Your task to perform on an android device: toggle improve location accuracy Image 0: 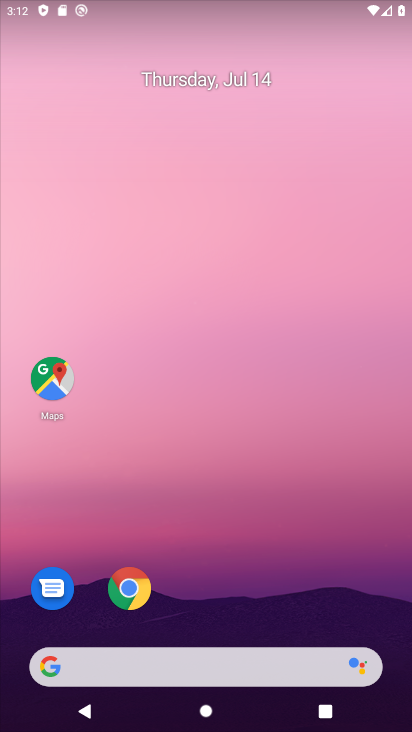
Step 0: click (266, 186)
Your task to perform on an android device: toggle improve location accuracy Image 1: 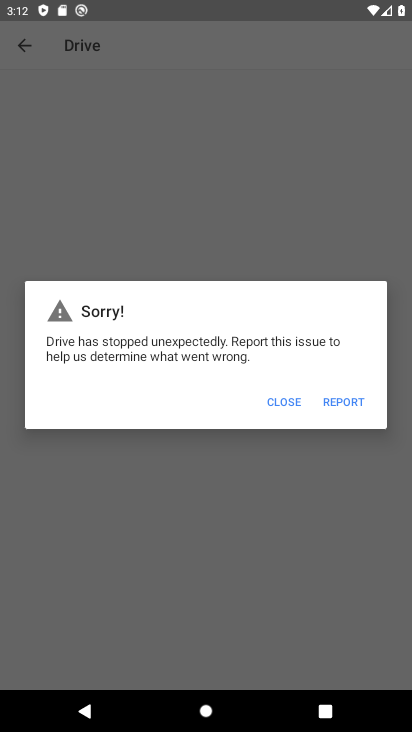
Step 1: press home button
Your task to perform on an android device: toggle improve location accuracy Image 2: 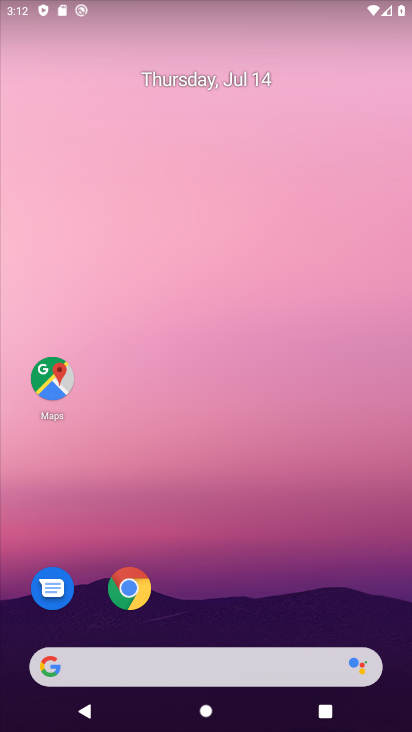
Step 2: drag from (222, 662) to (251, 124)
Your task to perform on an android device: toggle improve location accuracy Image 3: 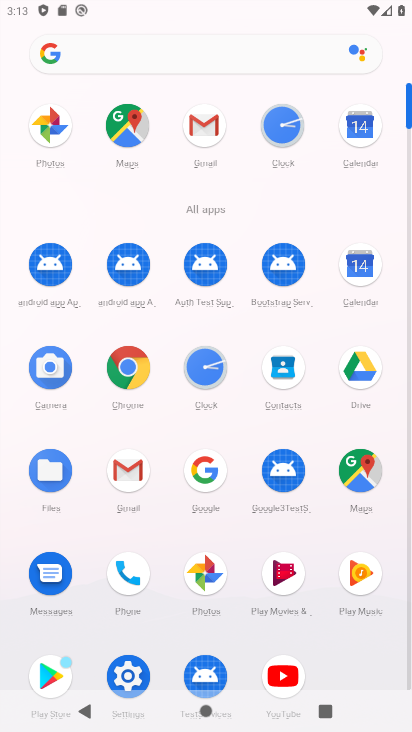
Step 3: click (129, 678)
Your task to perform on an android device: toggle improve location accuracy Image 4: 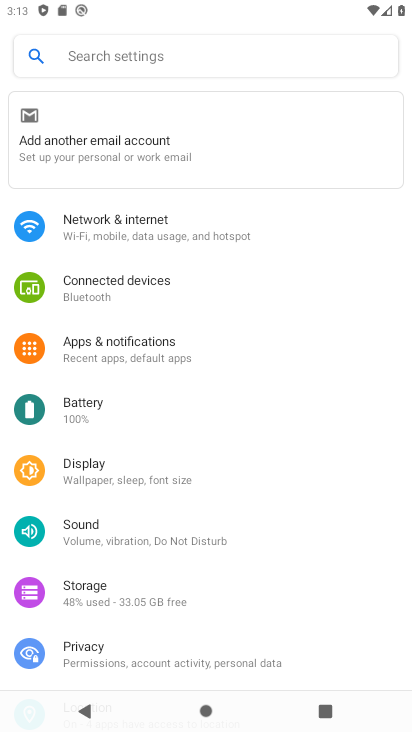
Step 4: drag from (127, 627) to (204, 451)
Your task to perform on an android device: toggle improve location accuracy Image 5: 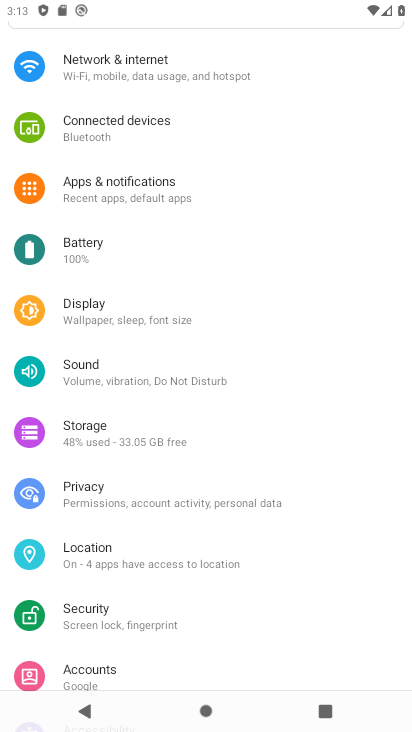
Step 5: click (109, 559)
Your task to perform on an android device: toggle improve location accuracy Image 6: 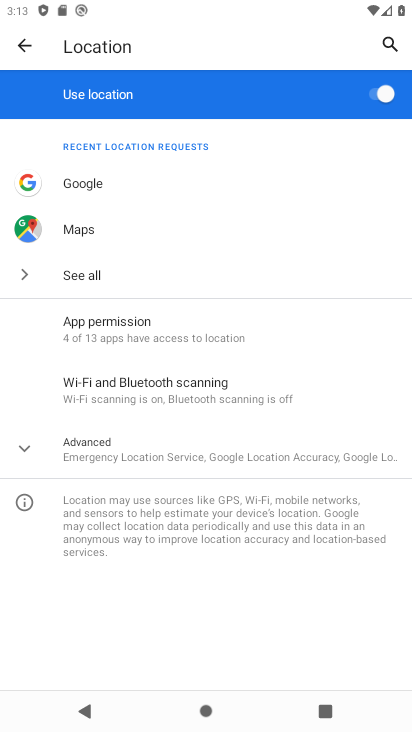
Step 6: click (127, 452)
Your task to perform on an android device: toggle improve location accuracy Image 7: 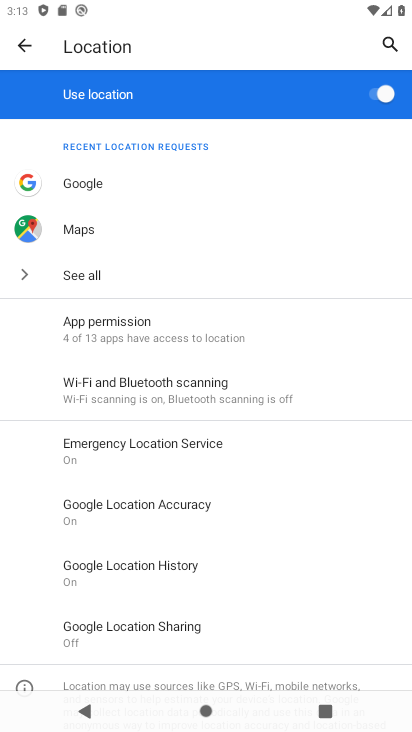
Step 7: click (200, 509)
Your task to perform on an android device: toggle improve location accuracy Image 8: 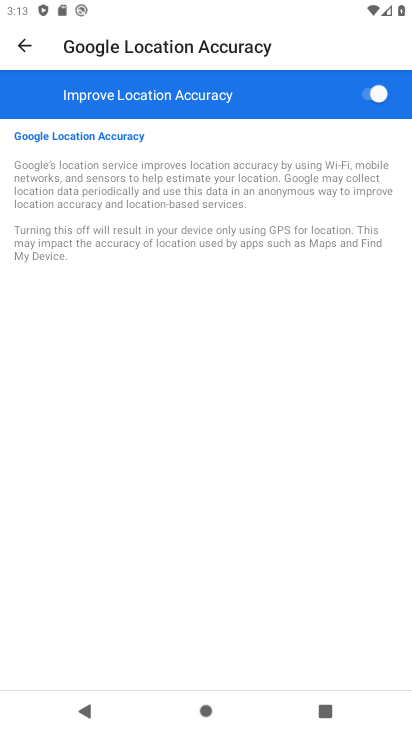
Step 8: click (376, 98)
Your task to perform on an android device: toggle improve location accuracy Image 9: 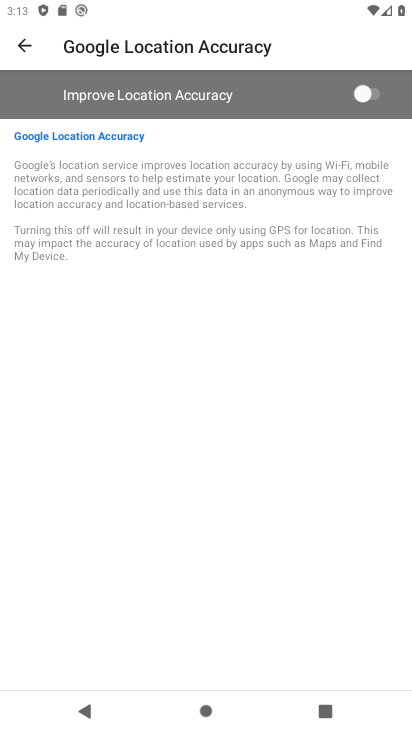
Step 9: task complete